Your task to perform on an android device: Go to location settings Image 0: 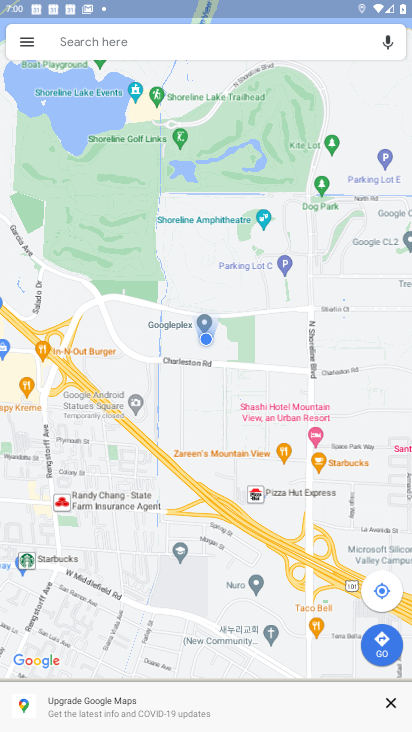
Step 0: press home button
Your task to perform on an android device: Go to location settings Image 1: 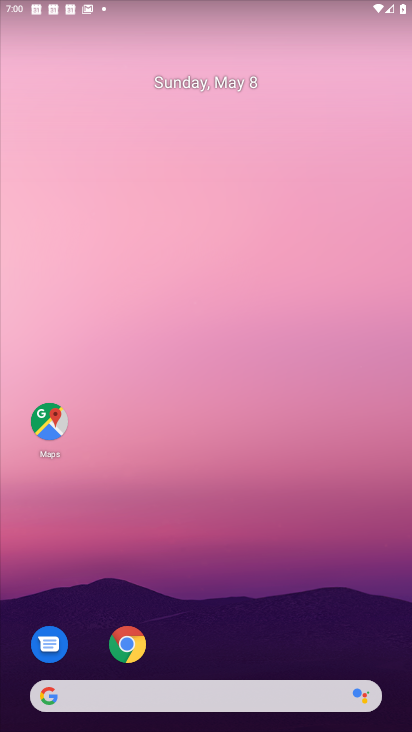
Step 1: drag from (304, 620) to (224, 154)
Your task to perform on an android device: Go to location settings Image 2: 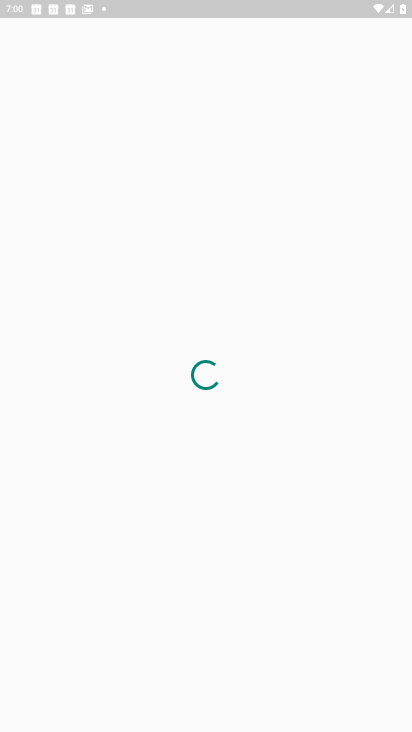
Step 2: click (204, 694)
Your task to perform on an android device: Go to location settings Image 3: 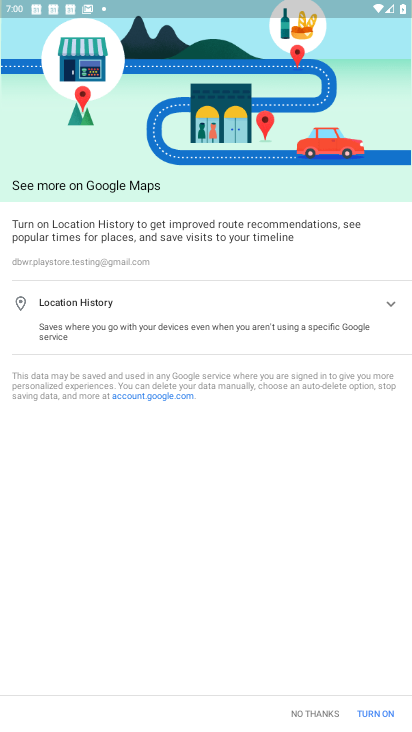
Step 3: press home button
Your task to perform on an android device: Go to location settings Image 4: 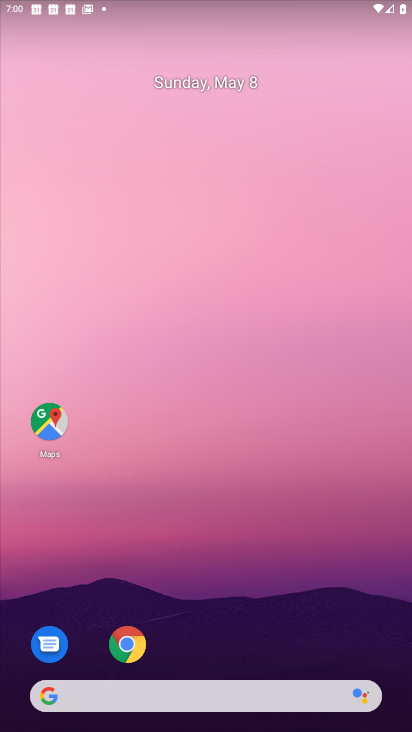
Step 4: drag from (246, 542) to (233, 356)
Your task to perform on an android device: Go to location settings Image 5: 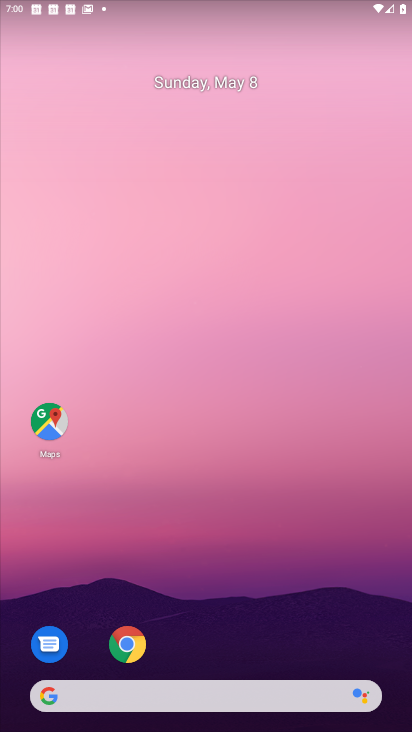
Step 5: drag from (306, 610) to (331, 4)
Your task to perform on an android device: Go to location settings Image 6: 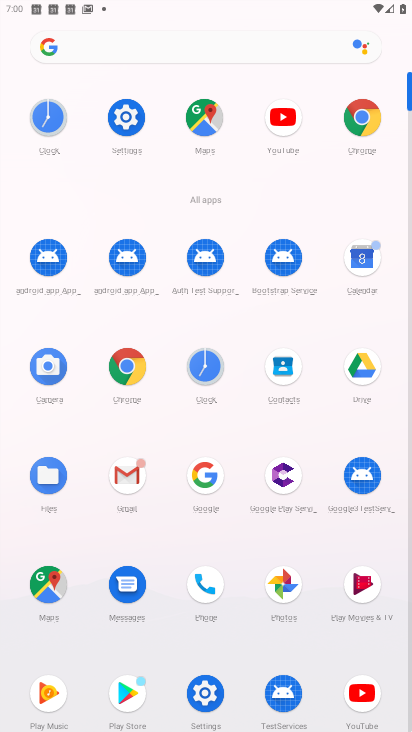
Step 6: click (221, 704)
Your task to perform on an android device: Go to location settings Image 7: 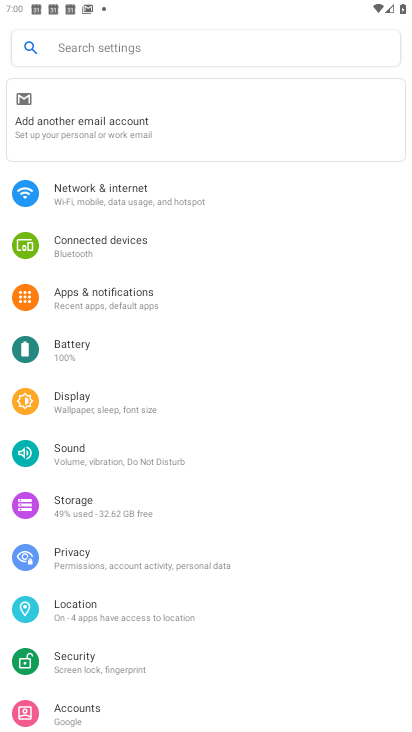
Step 7: click (136, 628)
Your task to perform on an android device: Go to location settings Image 8: 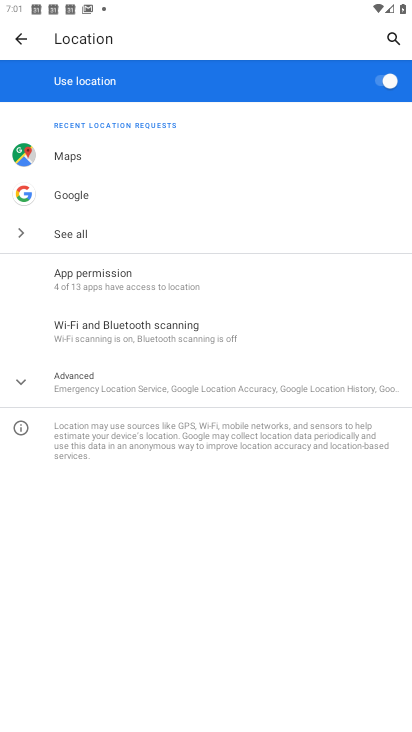
Step 8: task complete